Your task to perform on an android device: open wifi settings Image 0: 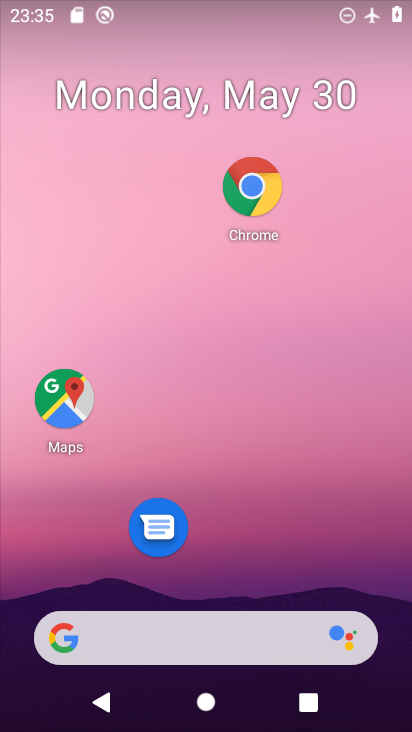
Step 0: drag from (289, 554) to (323, 211)
Your task to perform on an android device: open wifi settings Image 1: 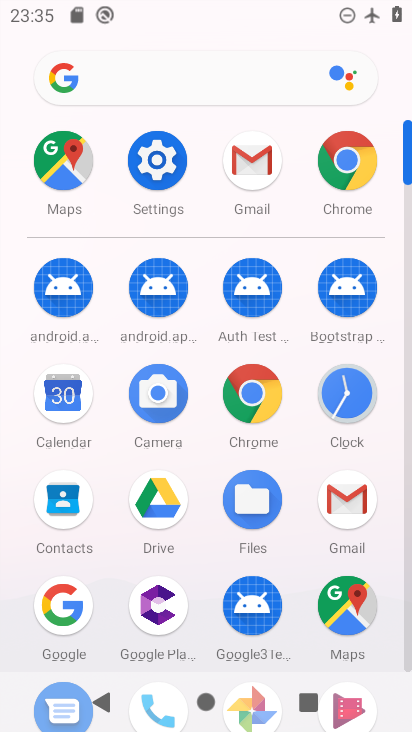
Step 1: click (148, 152)
Your task to perform on an android device: open wifi settings Image 2: 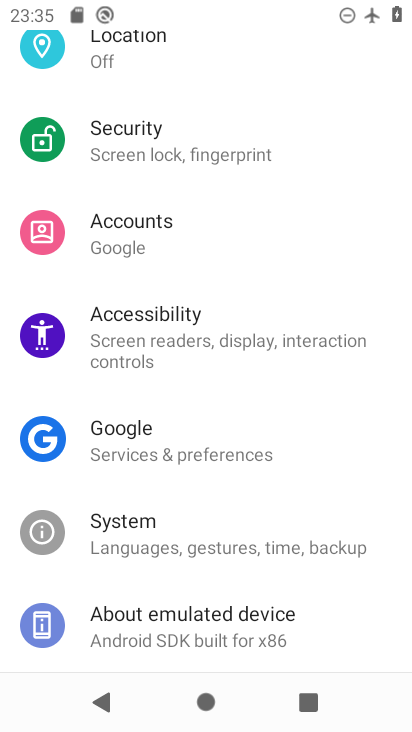
Step 2: drag from (215, 117) to (208, 566)
Your task to perform on an android device: open wifi settings Image 3: 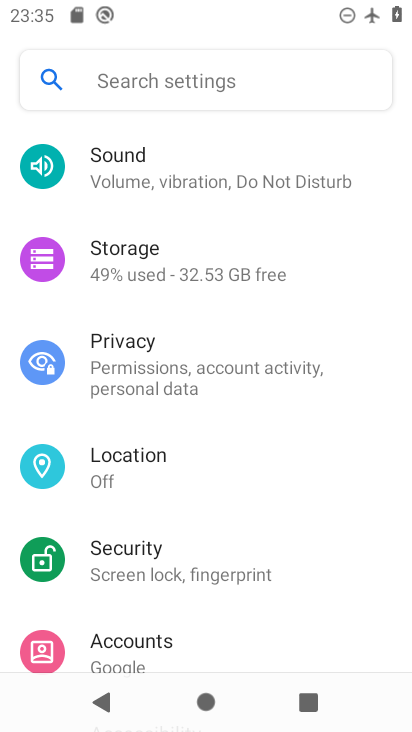
Step 3: drag from (220, 194) to (211, 584)
Your task to perform on an android device: open wifi settings Image 4: 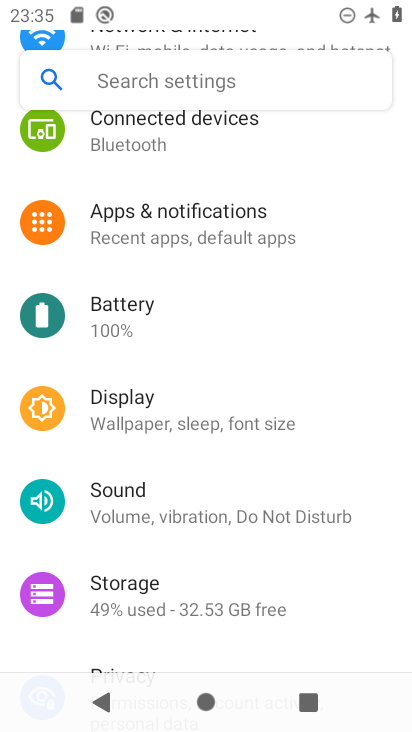
Step 4: drag from (230, 154) to (219, 602)
Your task to perform on an android device: open wifi settings Image 5: 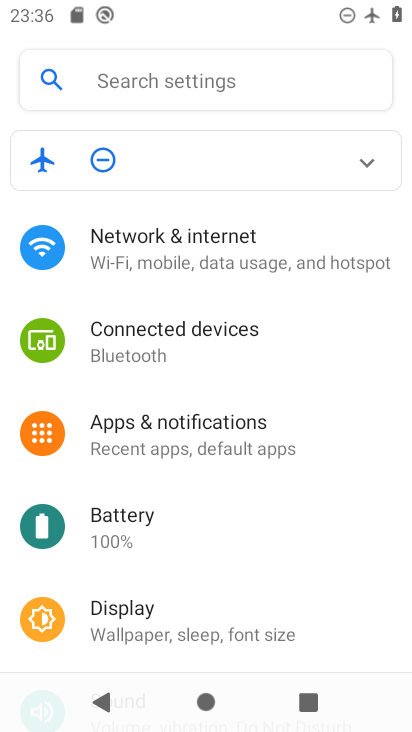
Step 5: click (182, 257)
Your task to perform on an android device: open wifi settings Image 6: 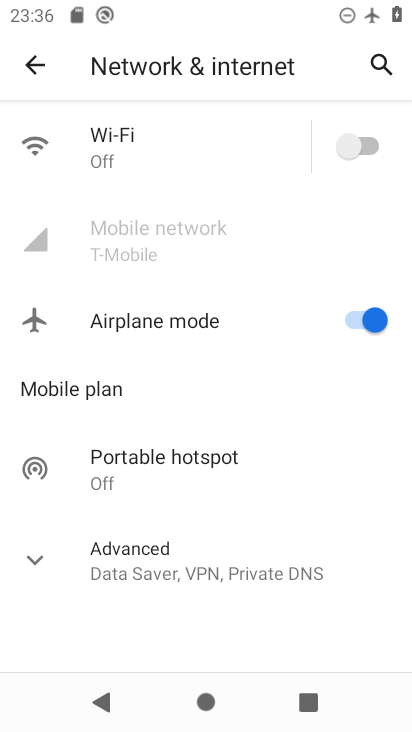
Step 6: task complete